Your task to perform on an android device: set an alarm Image 0: 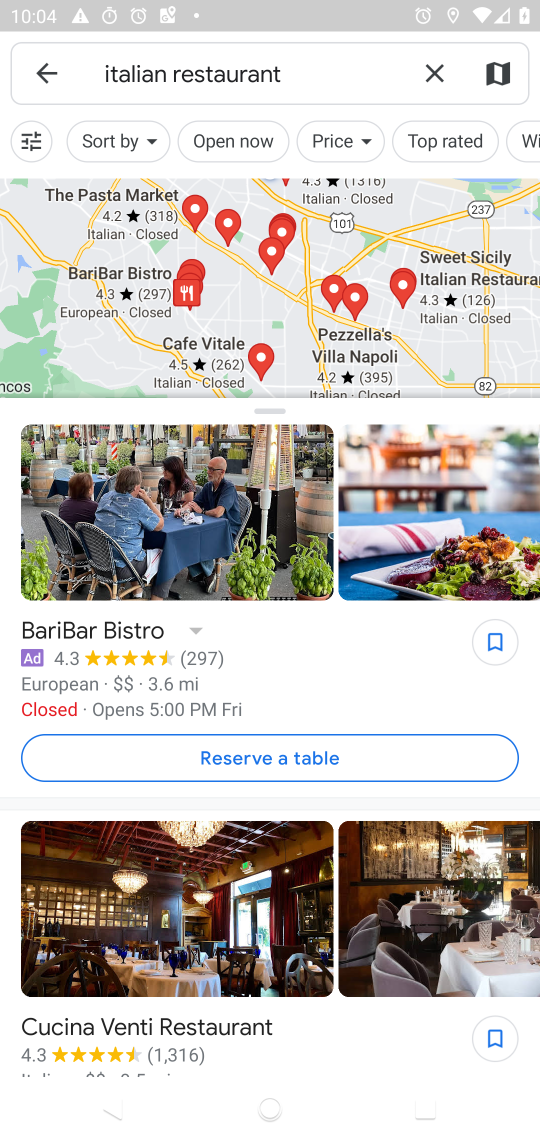
Step 0: press home button
Your task to perform on an android device: set an alarm Image 1: 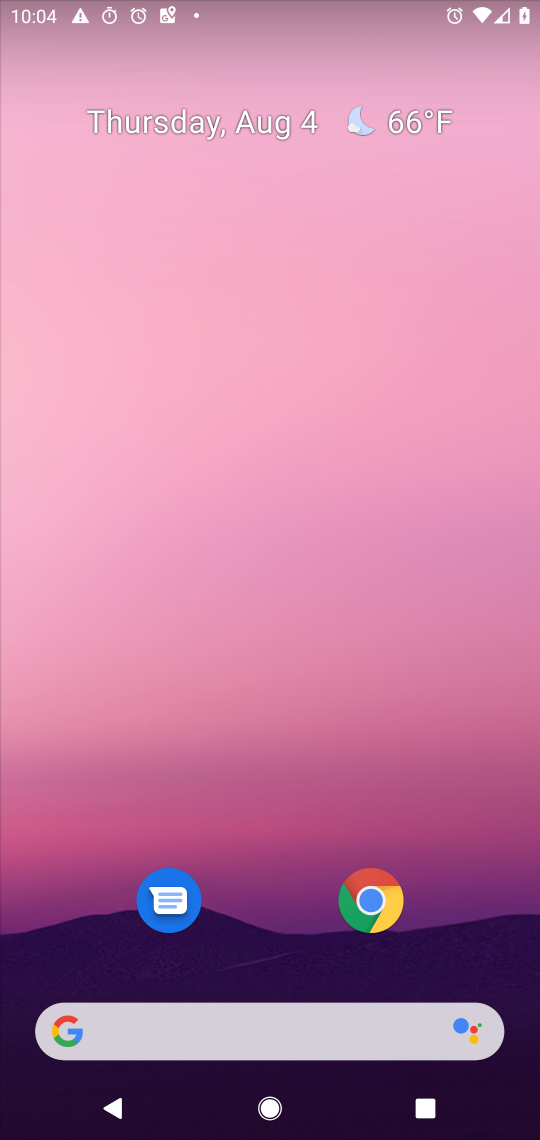
Step 1: drag from (248, 1027) to (248, 144)
Your task to perform on an android device: set an alarm Image 2: 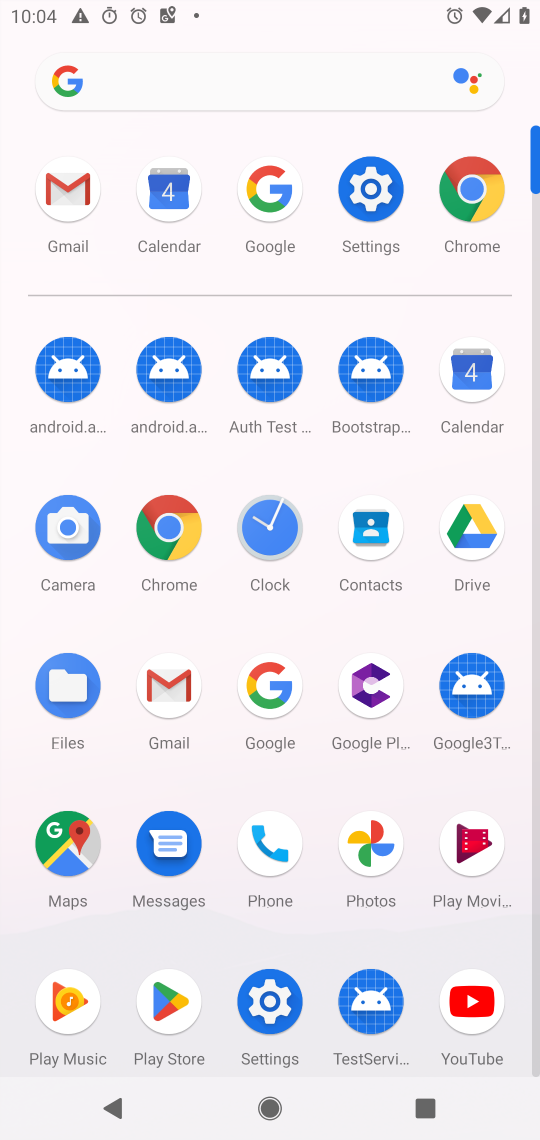
Step 2: click (272, 527)
Your task to perform on an android device: set an alarm Image 3: 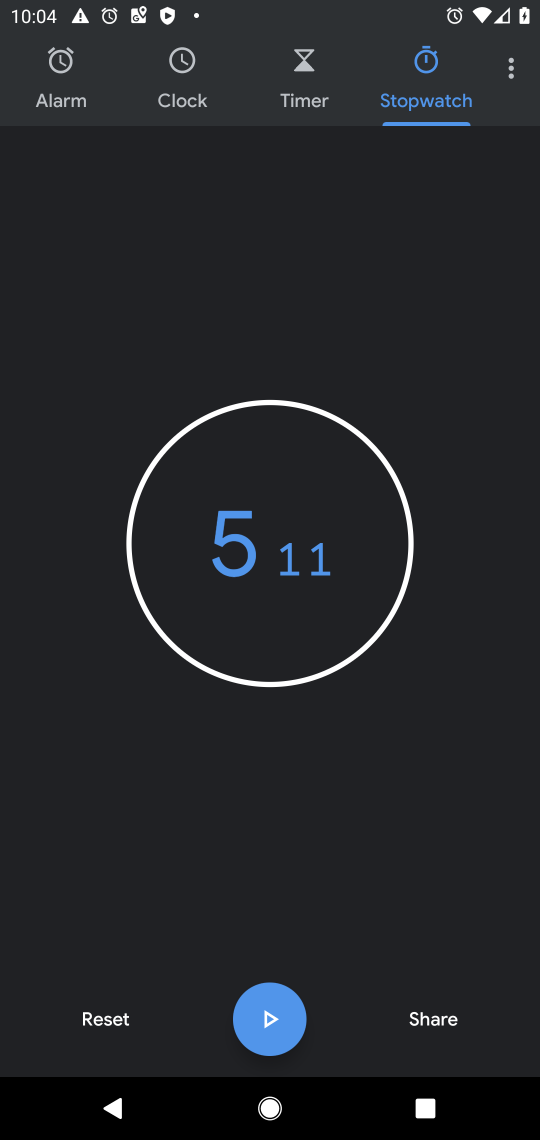
Step 3: click (72, 68)
Your task to perform on an android device: set an alarm Image 4: 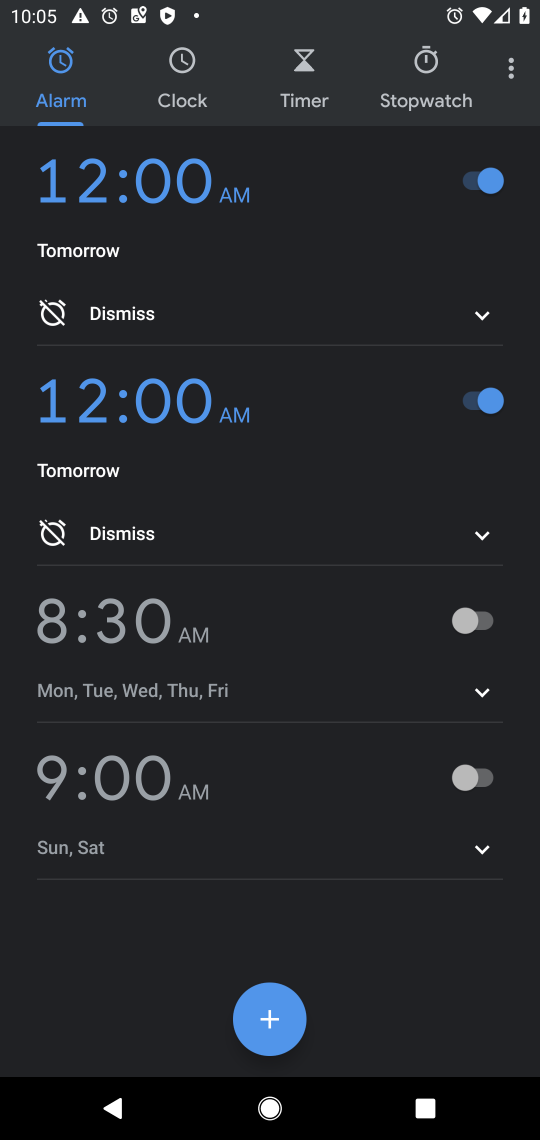
Step 4: click (125, 795)
Your task to perform on an android device: set an alarm Image 5: 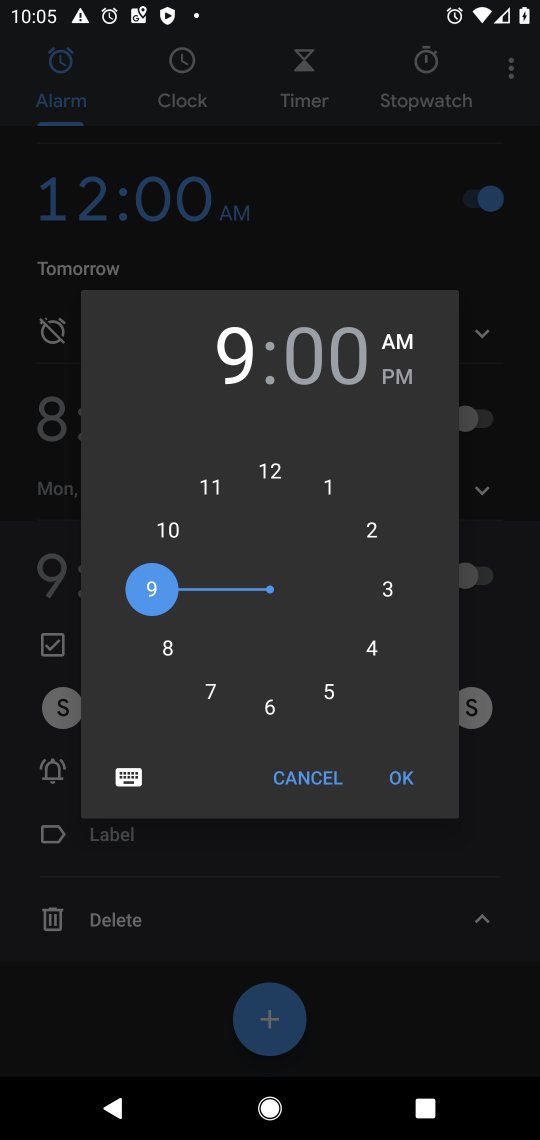
Step 5: click (375, 542)
Your task to perform on an android device: set an alarm Image 6: 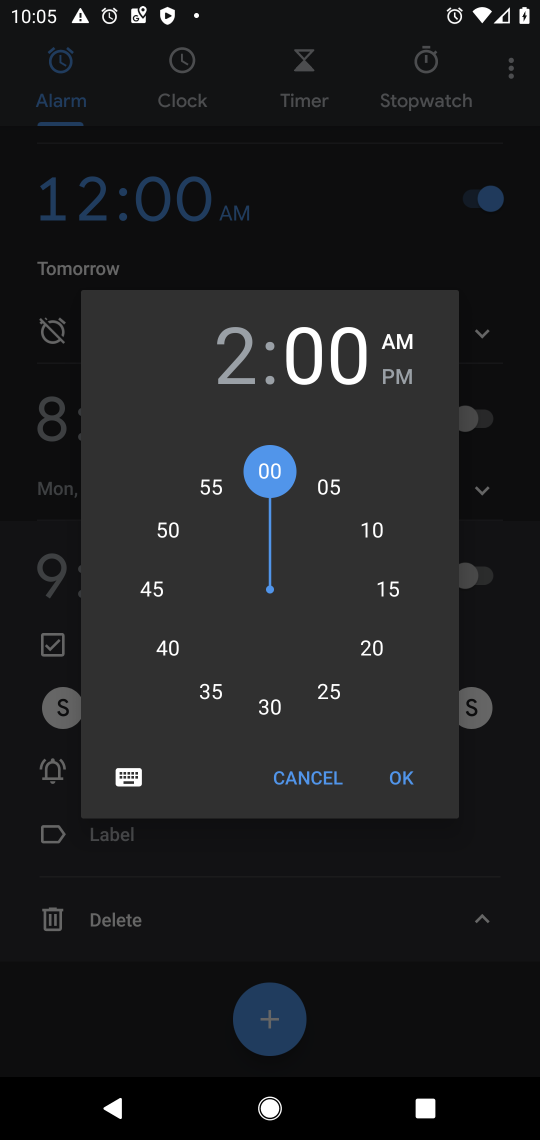
Step 6: click (160, 539)
Your task to perform on an android device: set an alarm Image 7: 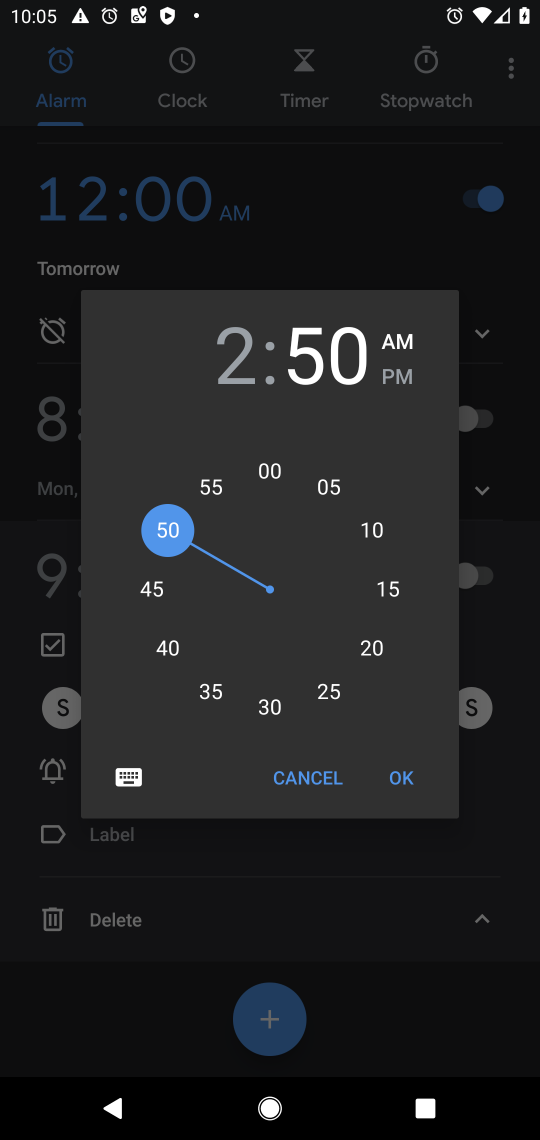
Step 7: click (407, 342)
Your task to perform on an android device: set an alarm Image 8: 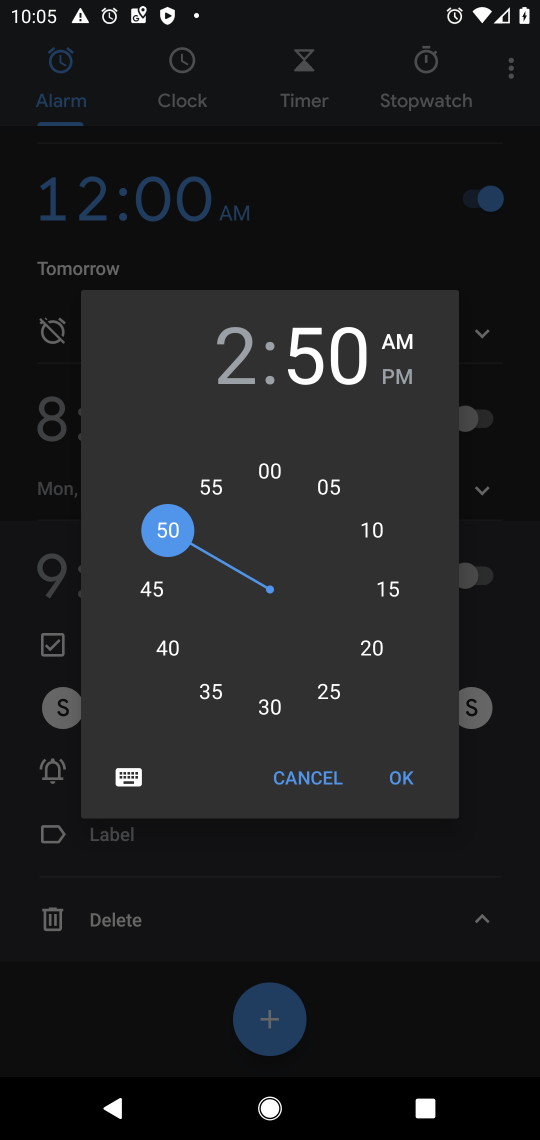
Step 8: click (419, 777)
Your task to perform on an android device: set an alarm Image 9: 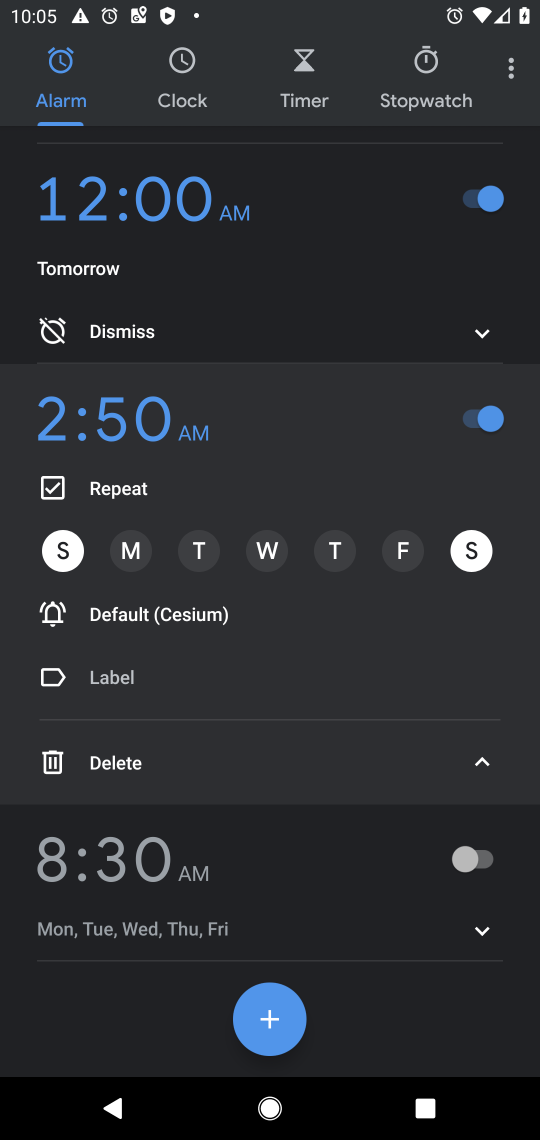
Step 9: task complete